Your task to perform on an android device: see creations saved in the google photos Image 0: 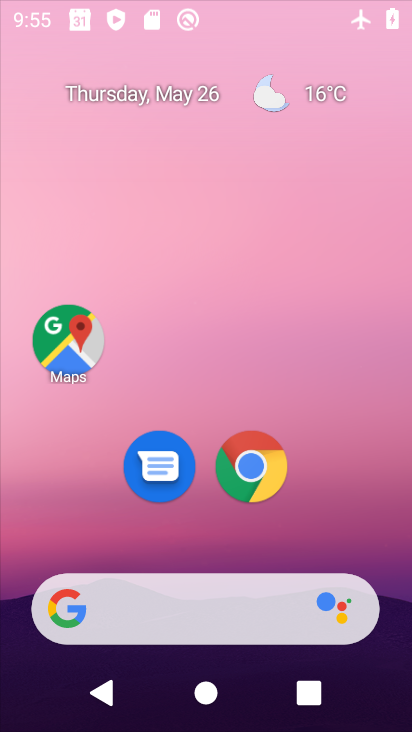
Step 0: press home button
Your task to perform on an android device: see creations saved in the google photos Image 1: 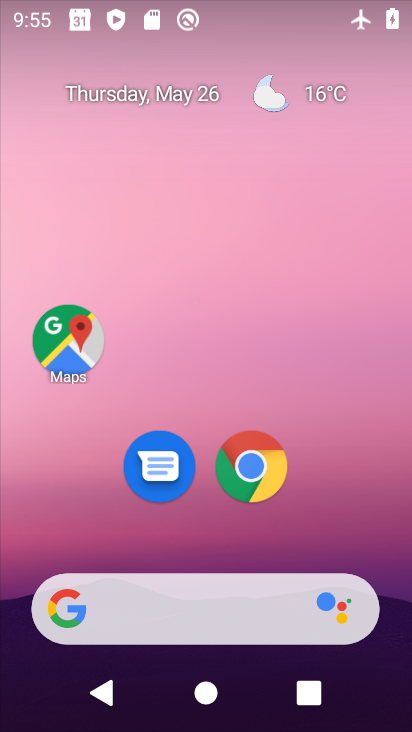
Step 1: drag from (341, 485) to (229, 20)
Your task to perform on an android device: see creations saved in the google photos Image 2: 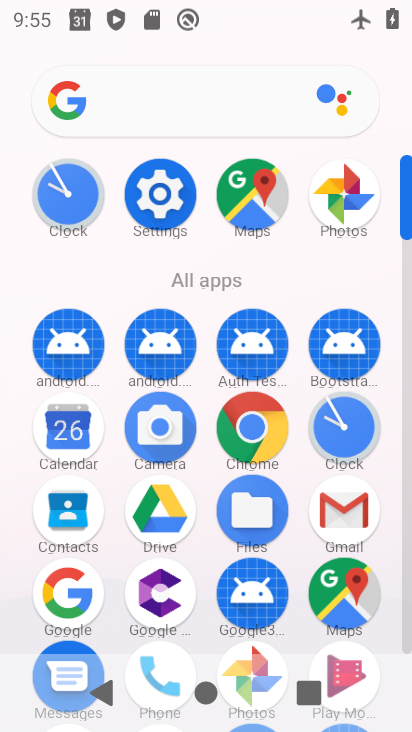
Step 2: click (347, 205)
Your task to perform on an android device: see creations saved in the google photos Image 3: 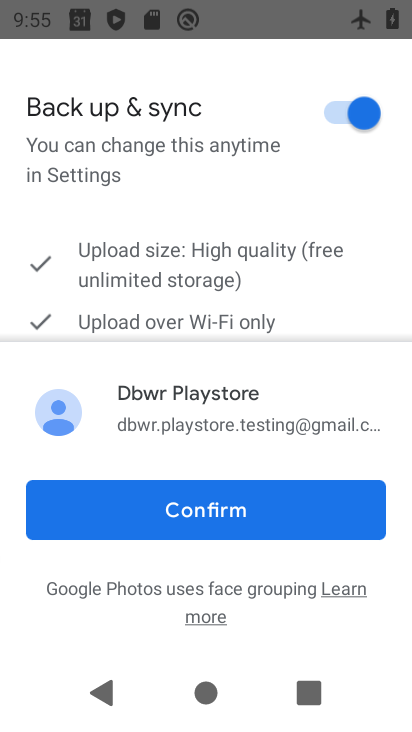
Step 3: click (214, 524)
Your task to perform on an android device: see creations saved in the google photos Image 4: 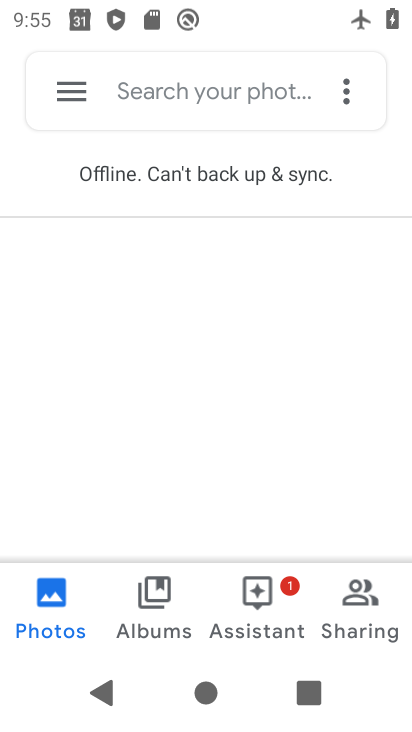
Step 4: click (134, 78)
Your task to perform on an android device: see creations saved in the google photos Image 5: 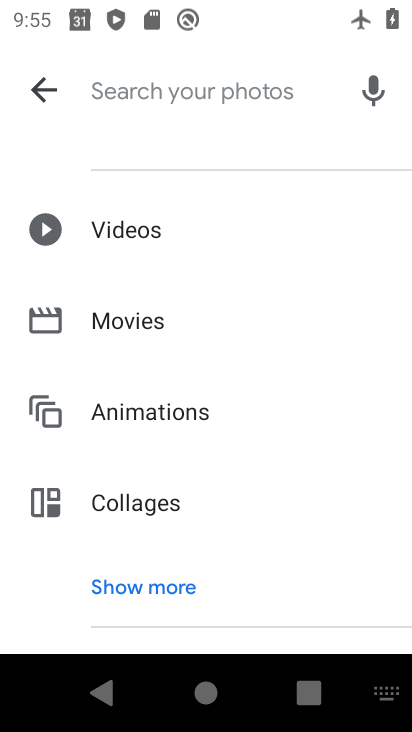
Step 5: click (159, 579)
Your task to perform on an android device: see creations saved in the google photos Image 6: 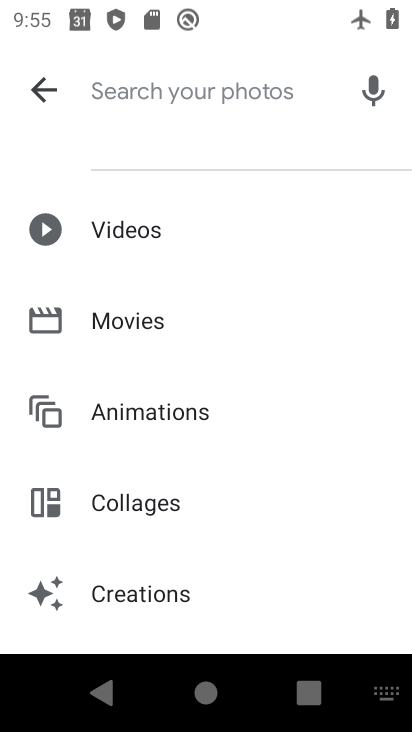
Step 6: click (140, 588)
Your task to perform on an android device: see creations saved in the google photos Image 7: 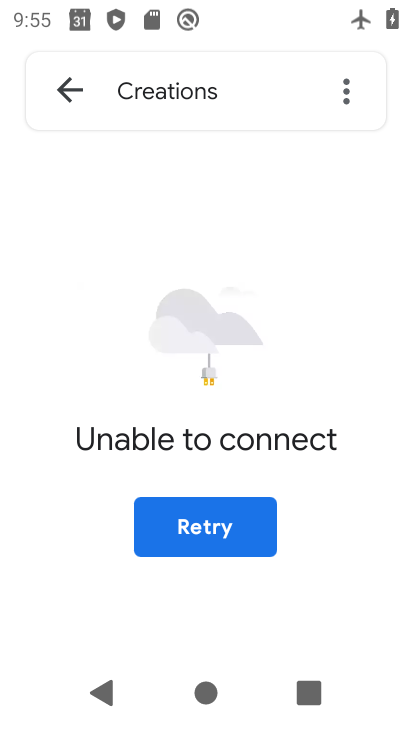
Step 7: task complete